Your task to perform on an android device: turn on showing notifications on the lock screen Image 0: 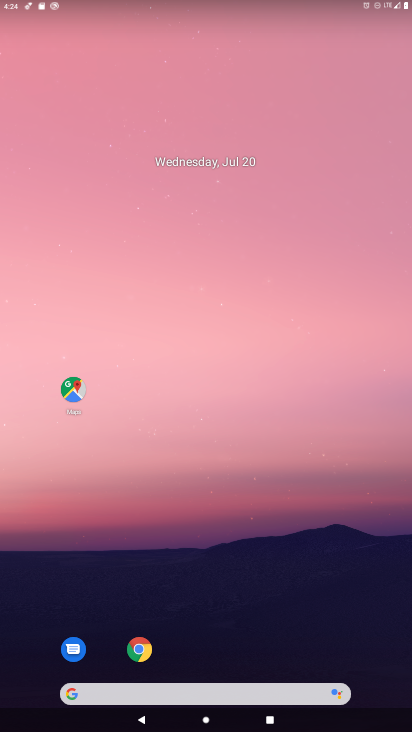
Step 0: drag from (208, 699) to (209, 244)
Your task to perform on an android device: turn on showing notifications on the lock screen Image 1: 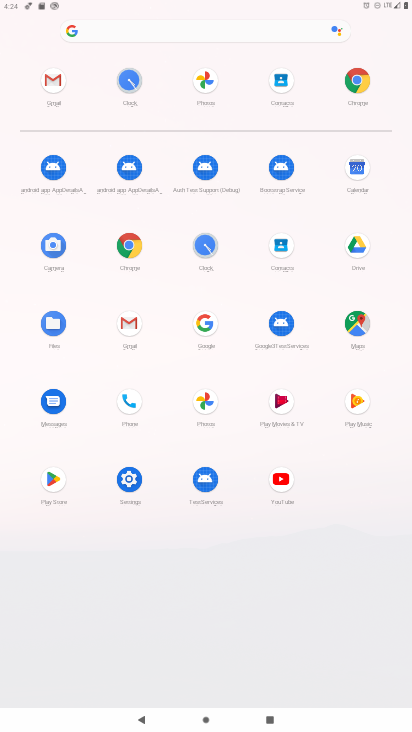
Step 1: click (129, 478)
Your task to perform on an android device: turn on showing notifications on the lock screen Image 2: 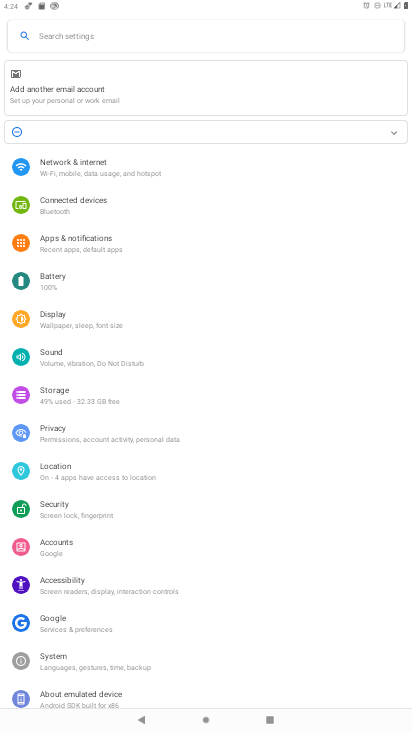
Step 2: click (66, 242)
Your task to perform on an android device: turn on showing notifications on the lock screen Image 3: 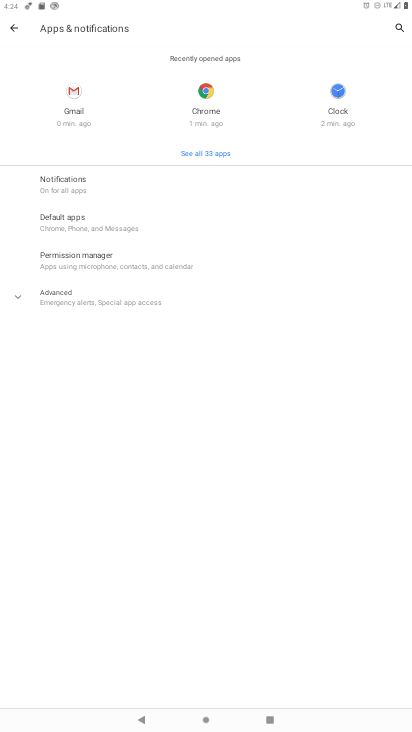
Step 3: click (63, 183)
Your task to perform on an android device: turn on showing notifications on the lock screen Image 4: 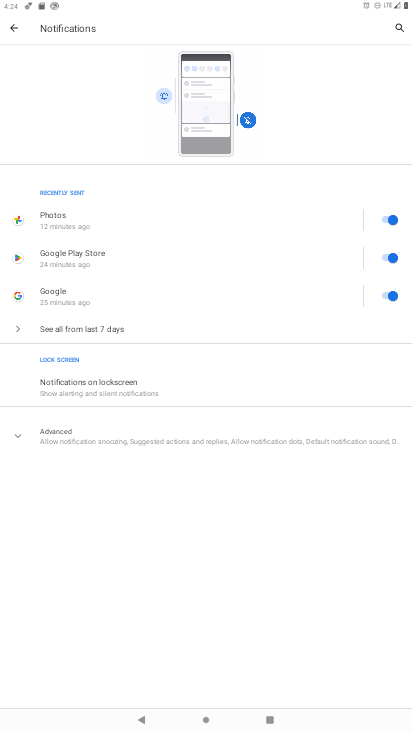
Step 4: click (92, 384)
Your task to perform on an android device: turn on showing notifications on the lock screen Image 5: 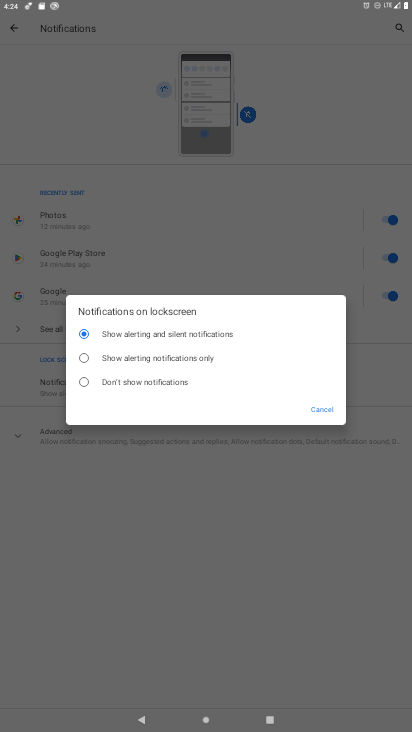
Step 5: click (81, 336)
Your task to perform on an android device: turn on showing notifications on the lock screen Image 6: 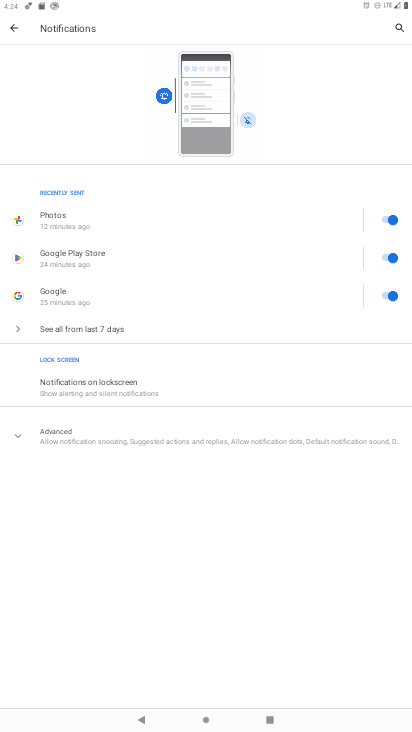
Step 6: task complete